Your task to perform on an android device: Open Google Maps Image 0: 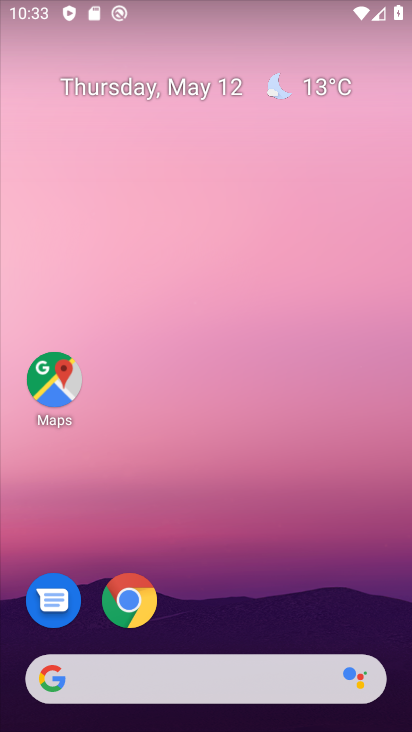
Step 0: click (50, 375)
Your task to perform on an android device: Open Google Maps Image 1: 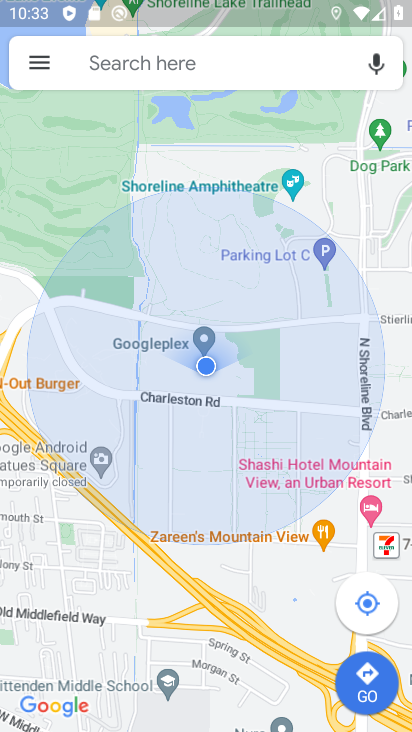
Step 1: task complete